Your task to perform on an android device: Go to calendar. Show me events next week Image 0: 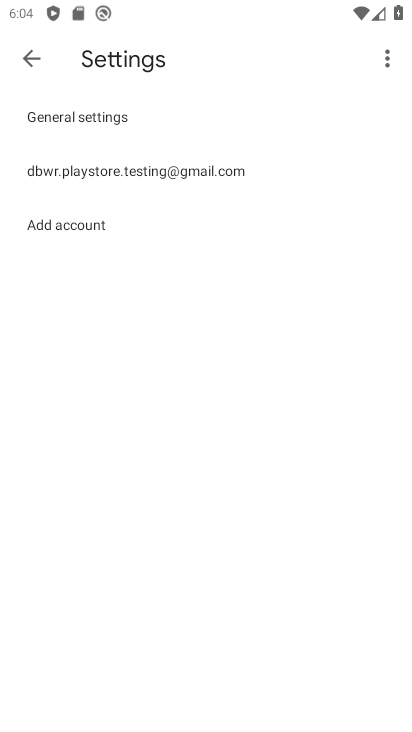
Step 0: press home button
Your task to perform on an android device: Go to calendar. Show me events next week Image 1: 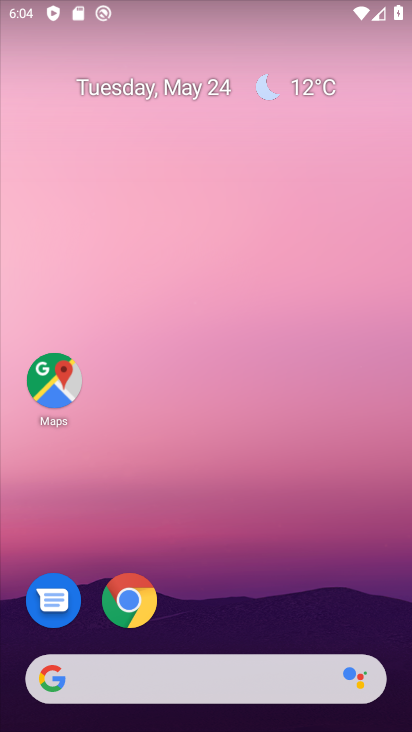
Step 1: drag from (118, 654) to (163, 27)
Your task to perform on an android device: Go to calendar. Show me events next week Image 2: 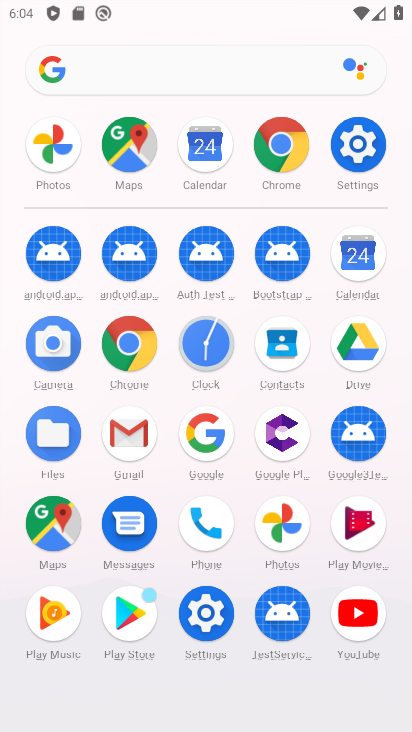
Step 2: click (355, 261)
Your task to perform on an android device: Go to calendar. Show me events next week Image 3: 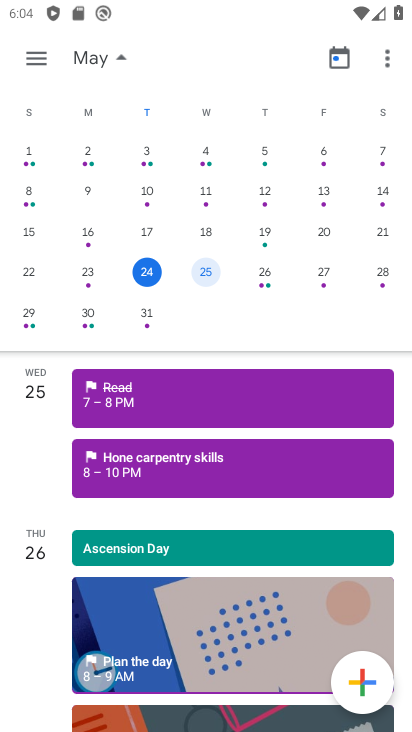
Step 3: click (87, 312)
Your task to perform on an android device: Go to calendar. Show me events next week Image 4: 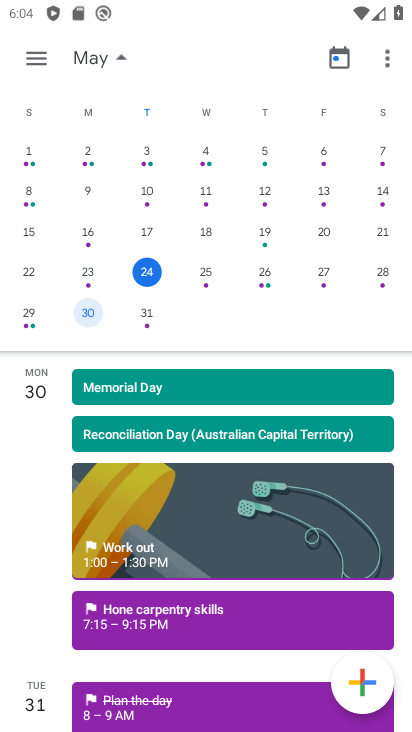
Step 4: click (44, 57)
Your task to perform on an android device: Go to calendar. Show me events next week Image 5: 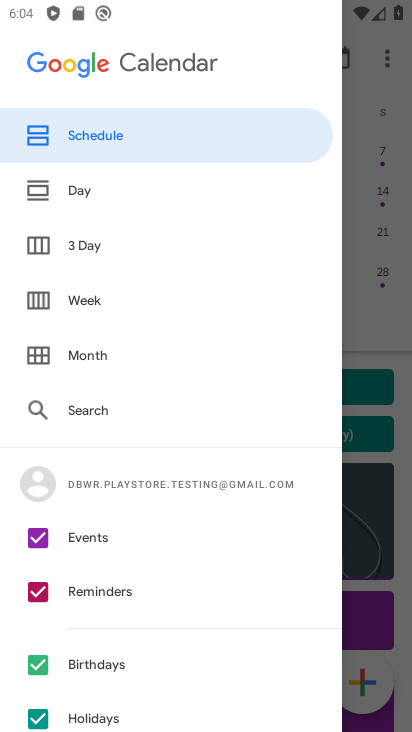
Step 5: click (112, 303)
Your task to perform on an android device: Go to calendar. Show me events next week Image 6: 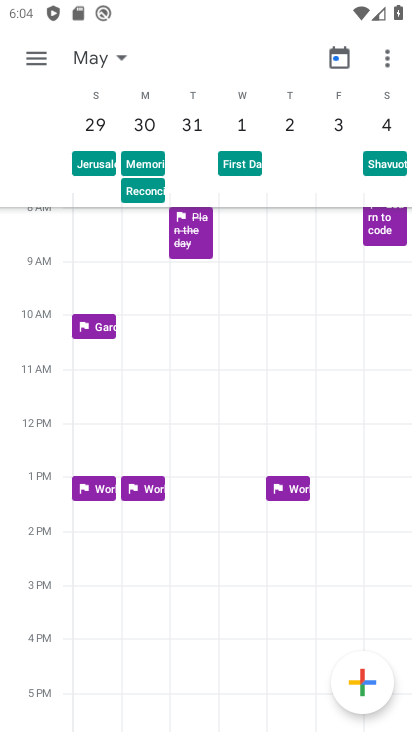
Step 6: task complete